Your task to perform on an android device: What's on my calendar tomorrow? Image 0: 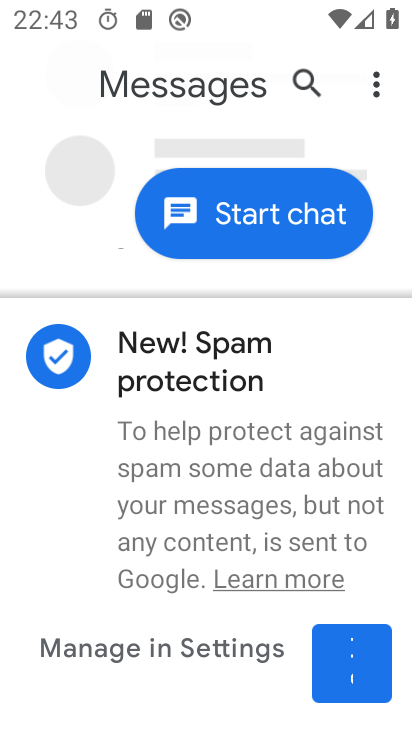
Step 0: press home button
Your task to perform on an android device: What's on my calendar tomorrow? Image 1: 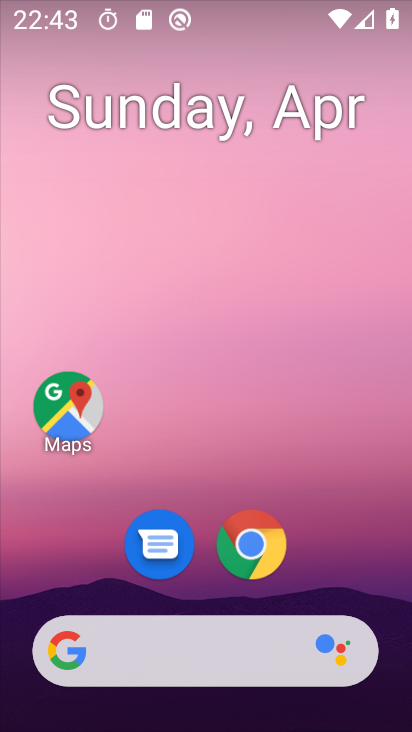
Step 1: drag from (332, 554) to (378, 231)
Your task to perform on an android device: What's on my calendar tomorrow? Image 2: 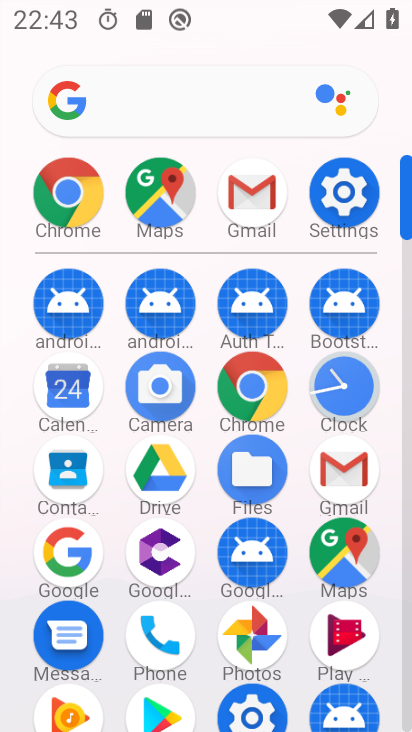
Step 2: click (69, 386)
Your task to perform on an android device: What's on my calendar tomorrow? Image 3: 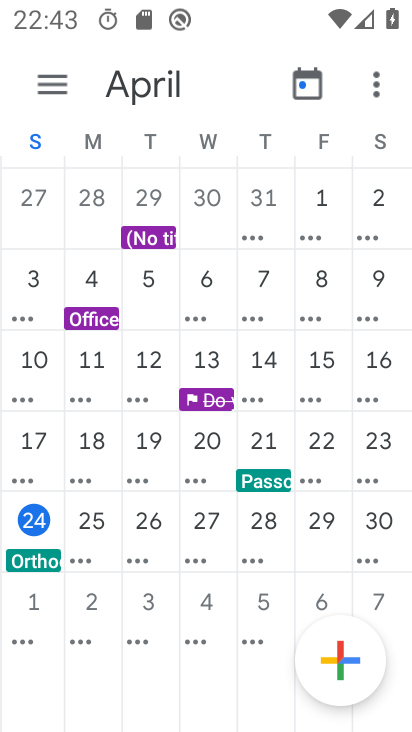
Step 3: click (90, 520)
Your task to perform on an android device: What's on my calendar tomorrow? Image 4: 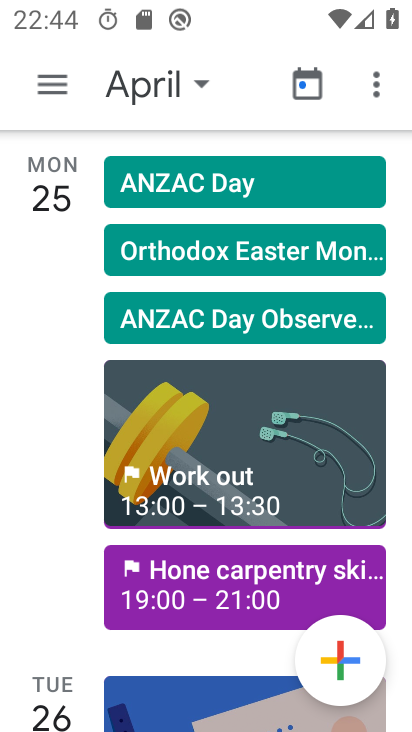
Step 4: task complete